Your task to perform on an android device: open a bookmark in the chrome app Image 0: 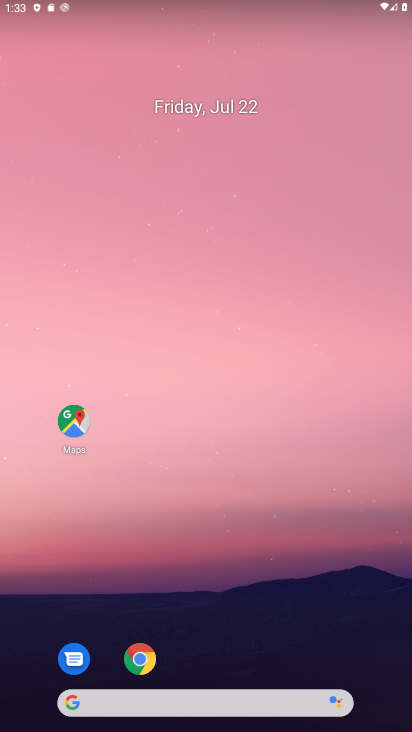
Step 0: click (157, 653)
Your task to perform on an android device: open a bookmark in the chrome app Image 1: 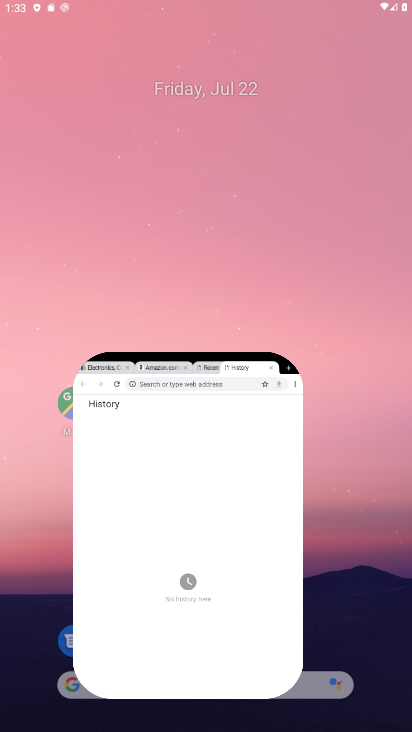
Step 1: task complete